Your task to perform on an android device: Open Android settings Image 0: 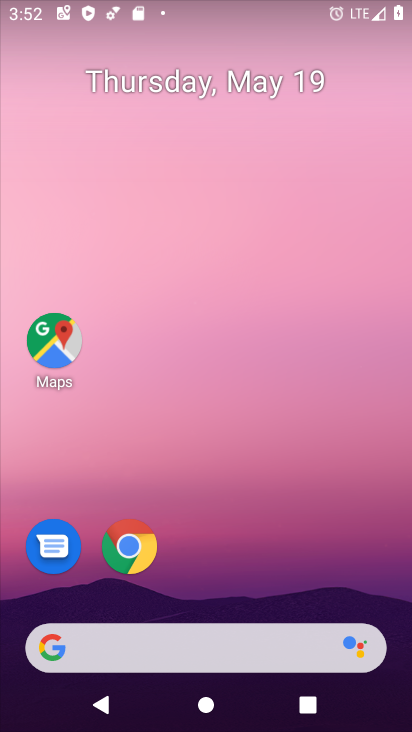
Step 0: drag from (256, 590) to (220, 5)
Your task to perform on an android device: Open Android settings Image 1: 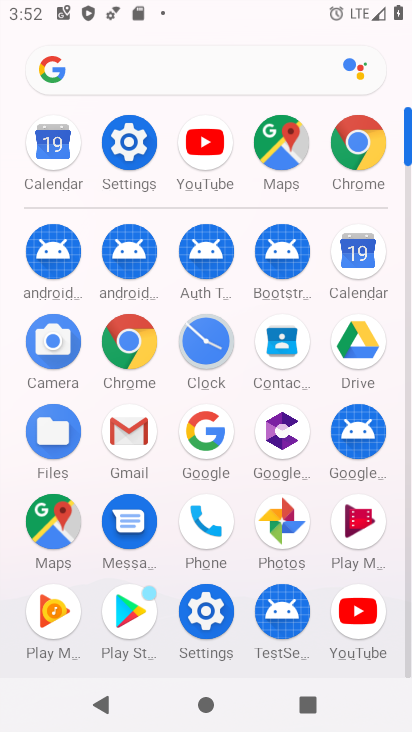
Step 1: click (201, 611)
Your task to perform on an android device: Open Android settings Image 2: 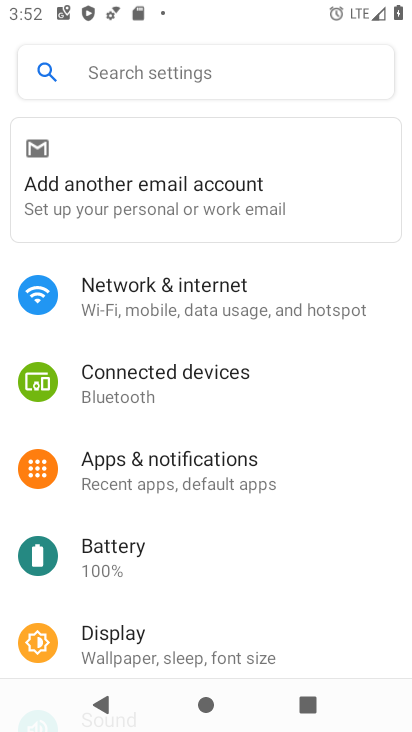
Step 2: drag from (210, 298) to (233, 241)
Your task to perform on an android device: Open Android settings Image 3: 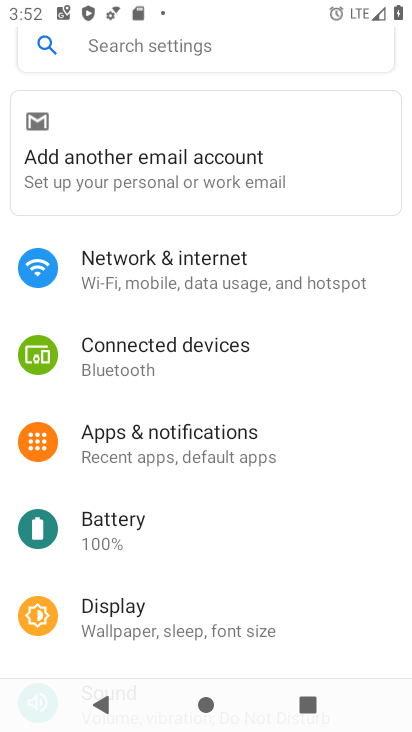
Step 3: drag from (203, 569) to (239, 133)
Your task to perform on an android device: Open Android settings Image 4: 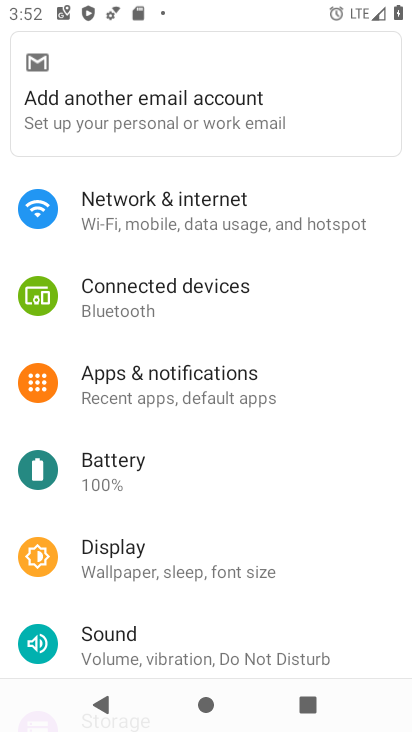
Step 4: drag from (171, 613) to (207, 109)
Your task to perform on an android device: Open Android settings Image 5: 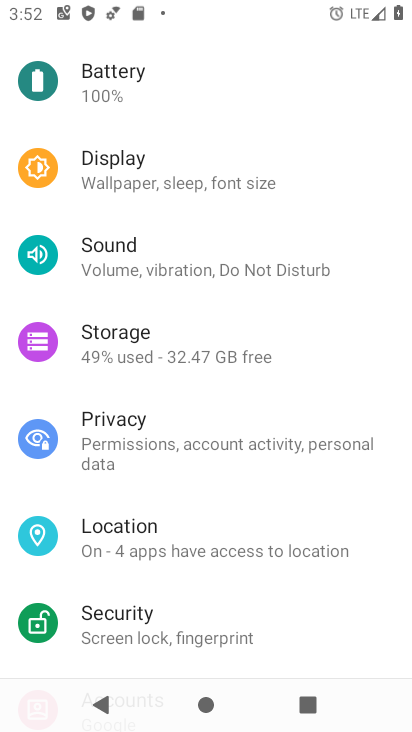
Step 5: drag from (177, 509) to (186, 251)
Your task to perform on an android device: Open Android settings Image 6: 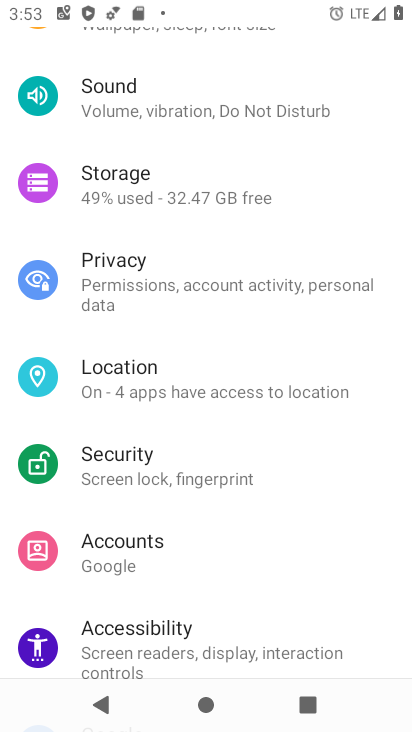
Step 6: drag from (183, 633) to (233, 295)
Your task to perform on an android device: Open Android settings Image 7: 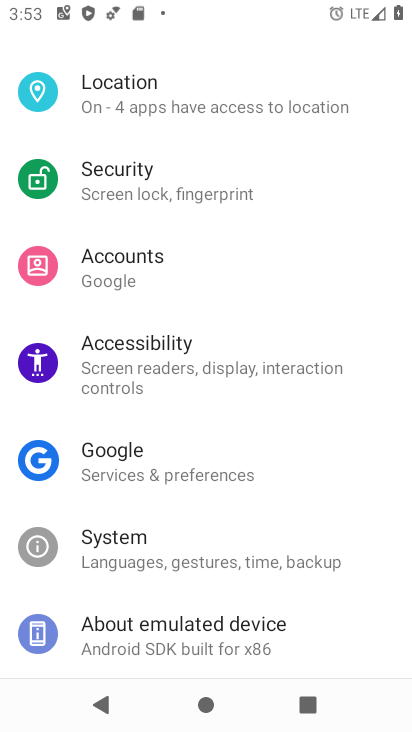
Step 7: click (199, 622)
Your task to perform on an android device: Open Android settings Image 8: 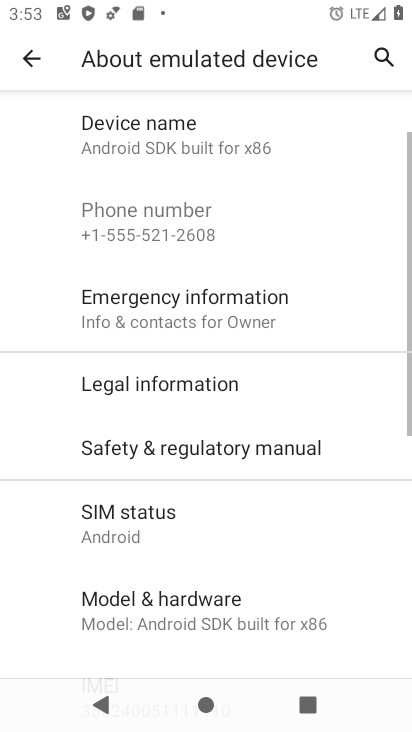
Step 8: drag from (192, 560) to (242, 177)
Your task to perform on an android device: Open Android settings Image 9: 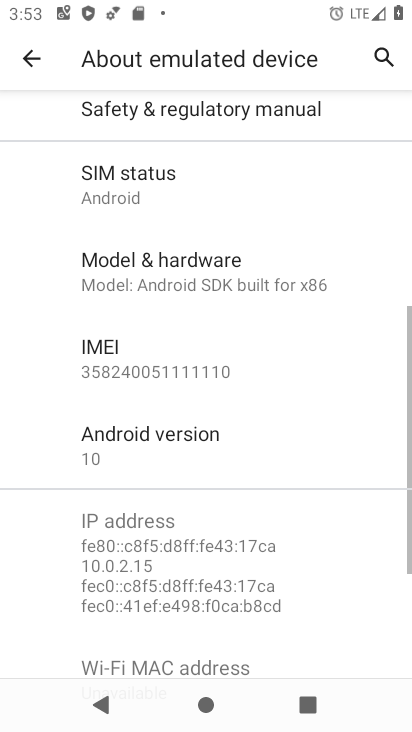
Step 9: click (175, 438)
Your task to perform on an android device: Open Android settings Image 10: 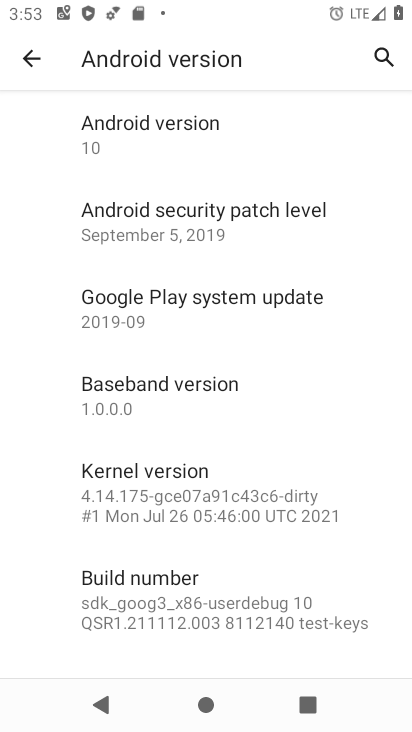
Step 10: task complete